Your task to perform on an android device: Toggle the flashlight Image 0: 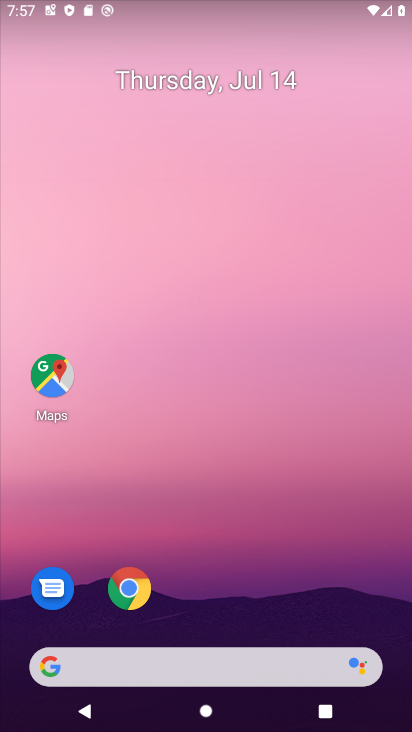
Step 0: drag from (284, 554) to (186, 40)
Your task to perform on an android device: Toggle the flashlight Image 1: 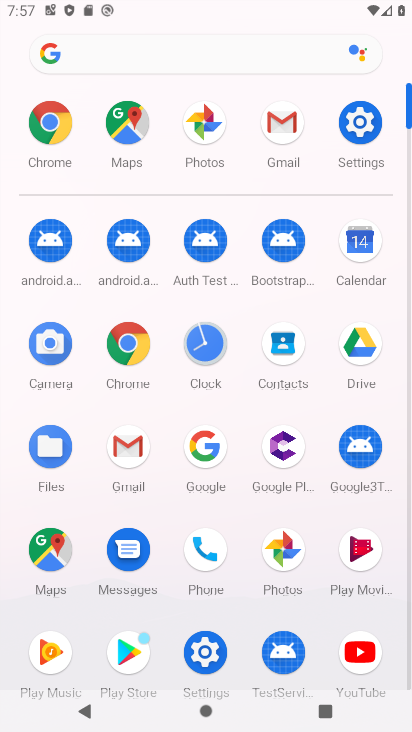
Step 1: click (361, 121)
Your task to perform on an android device: Toggle the flashlight Image 2: 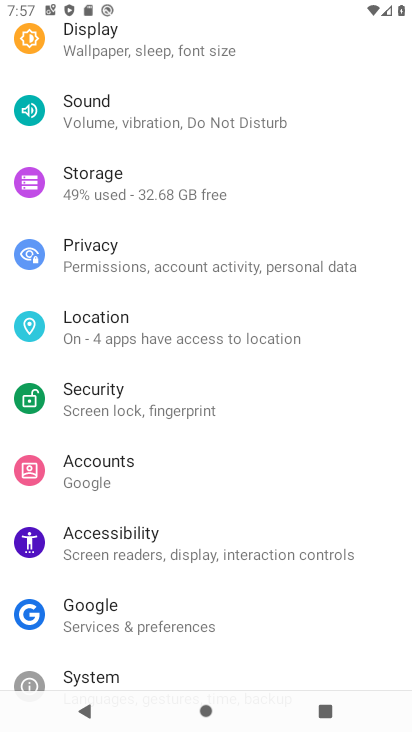
Step 2: click (111, 45)
Your task to perform on an android device: Toggle the flashlight Image 3: 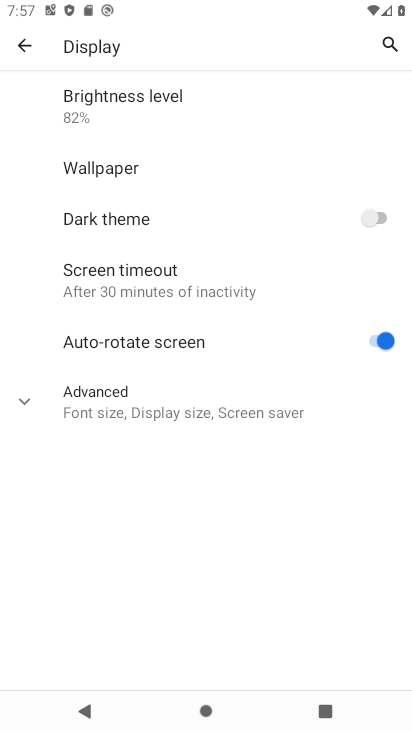
Step 3: click (135, 404)
Your task to perform on an android device: Toggle the flashlight Image 4: 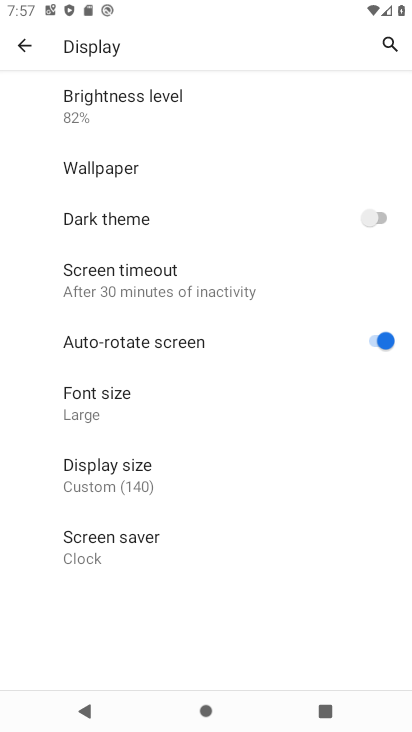
Step 4: task complete